Your task to perform on an android device: Open calendar and show me the second week of next month Image 0: 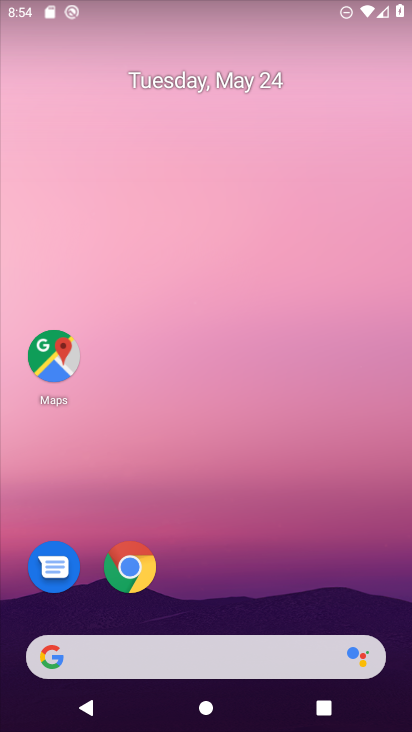
Step 0: press home button
Your task to perform on an android device: Open calendar and show me the second week of next month Image 1: 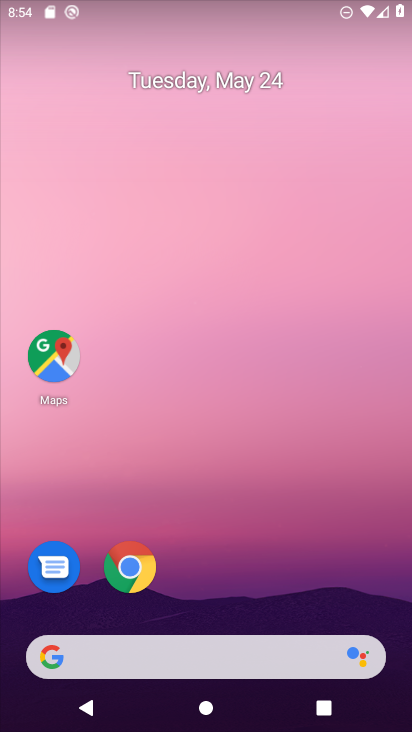
Step 1: drag from (210, 669) to (370, 73)
Your task to perform on an android device: Open calendar and show me the second week of next month Image 2: 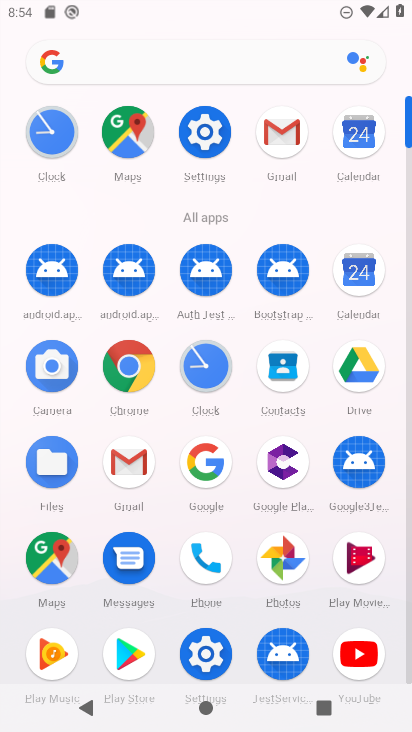
Step 2: click (362, 276)
Your task to perform on an android device: Open calendar and show me the second week of next month Image 3: 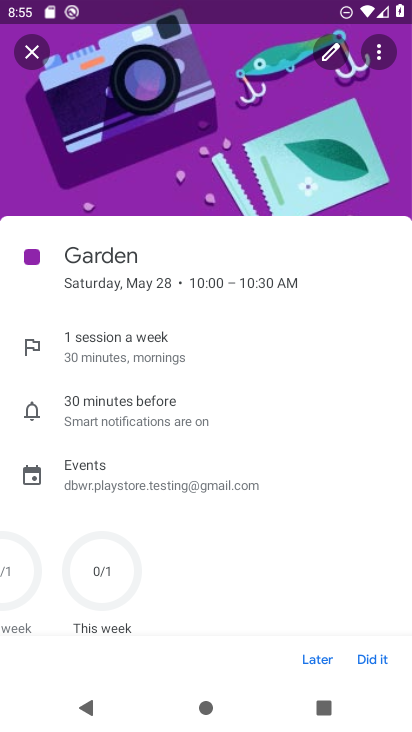
Step 3: click (33, 50)
Your task to perform on an android device: Open calendar and show me the second week of next month Image 4: 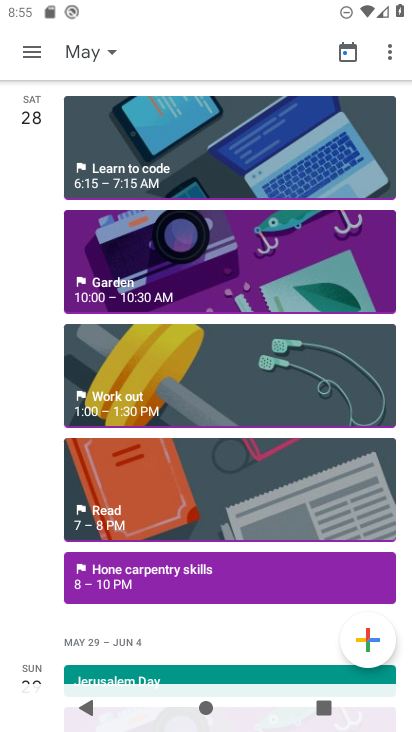
Step 4: click (83, 53)
Your task to perform on an android device: Open calendar and show me the second week of next month Image 5: 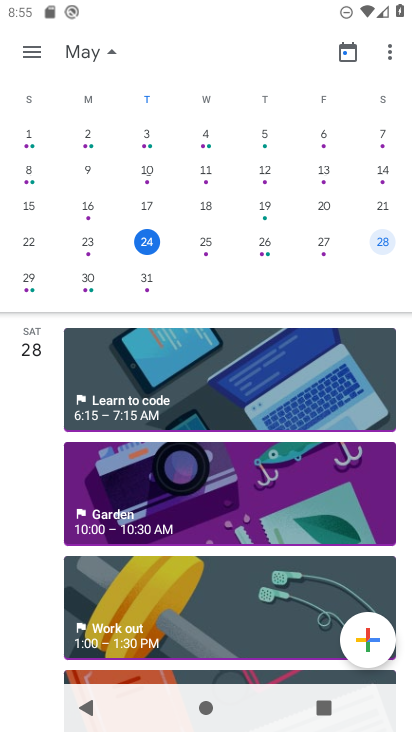
Step 5: drag from (385, 205) to (7, 222)
Your task to perform on an android device: Open calendar and show me the second week of next month Image 6: 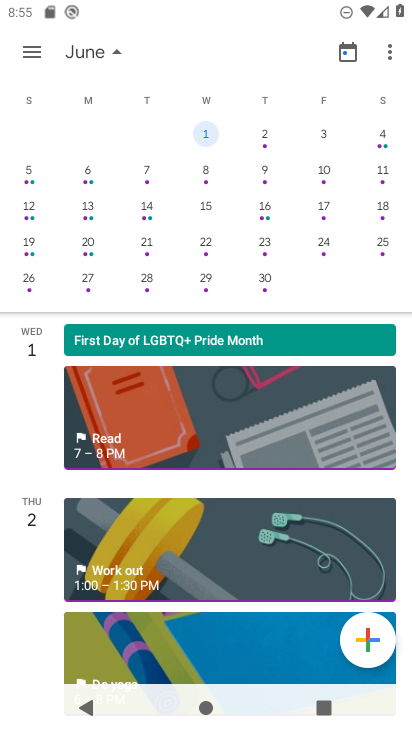
Step 6: click (37, 175)
Your task to perform on an android device: Open calendar and show me the second week of next month Image 7: 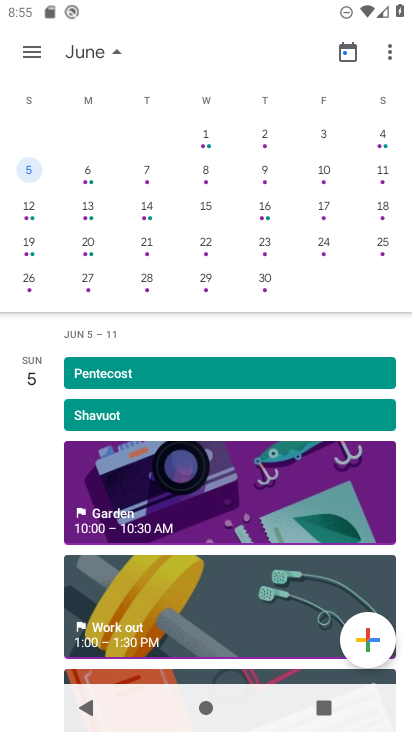
Step 7: click (29, 52)
Your task to perform on an android device: Open calendar and show me the second week of next month Image 8: 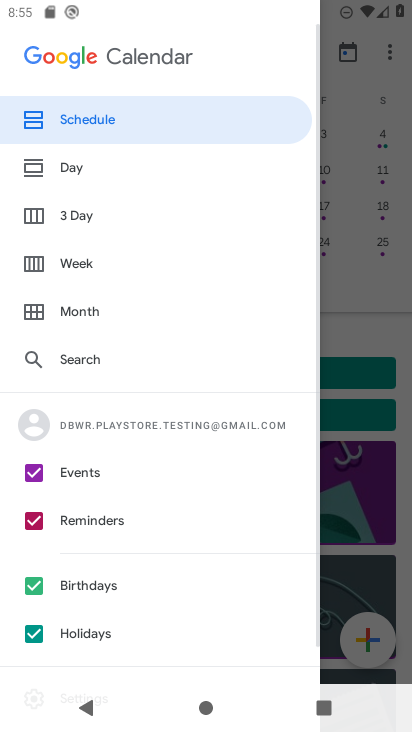
Step 8: click (86, 265)
Your task to perform on an android device: Open calendar and show me the second week of next month Image 9: 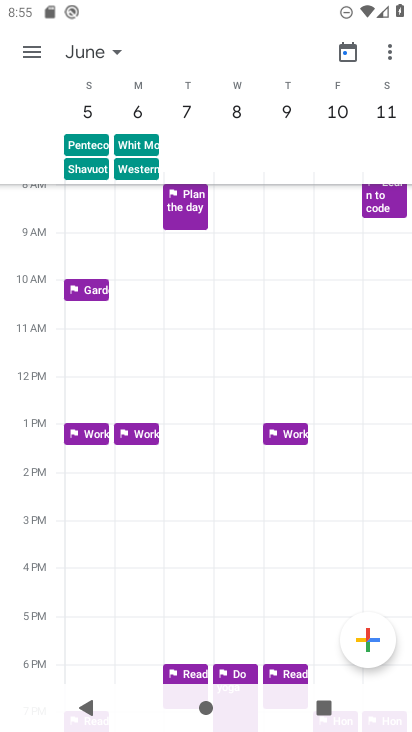
Step 9: task complete